Your task to perform on an android device: Go to Yahoo.com Image 0: 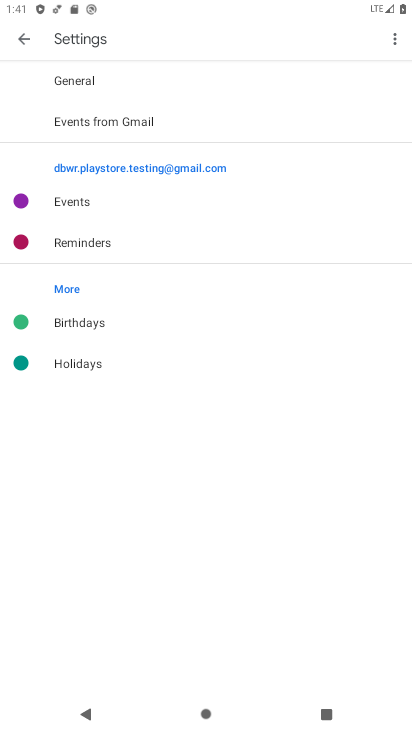
Step 0: press back button
Your task to perform on an android device: Go to Yahoo.com Image 1: 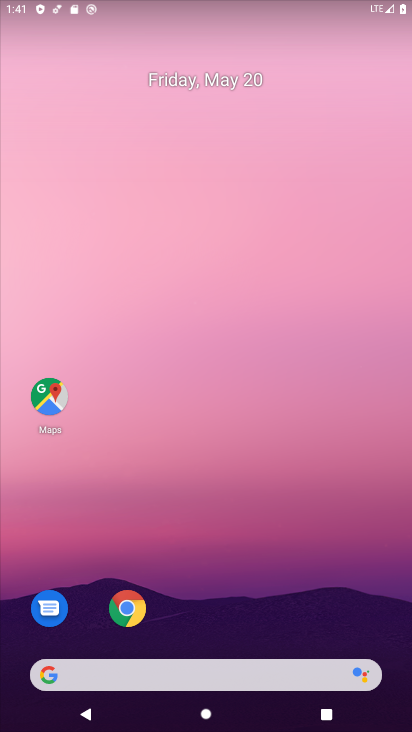
Step 1: click (129, 608)
Your task to perform on an android device: Go to Yahoo.com Image 2: 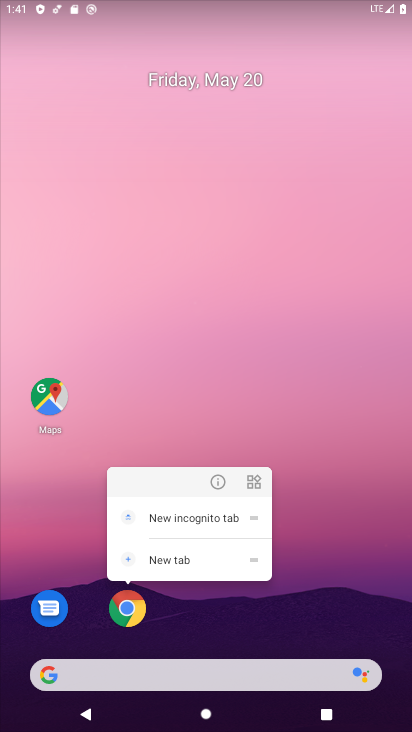
Step 2: click (129, 608)
Your task to perform on an android device: Go to Yahoo.com Image 3: 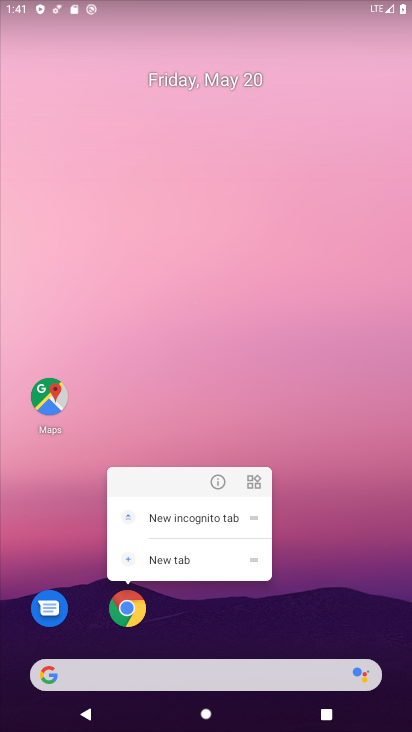
Step 3: click (122, 611)
Your task to perform on an android device: Go to Yahoo.com Image 4: 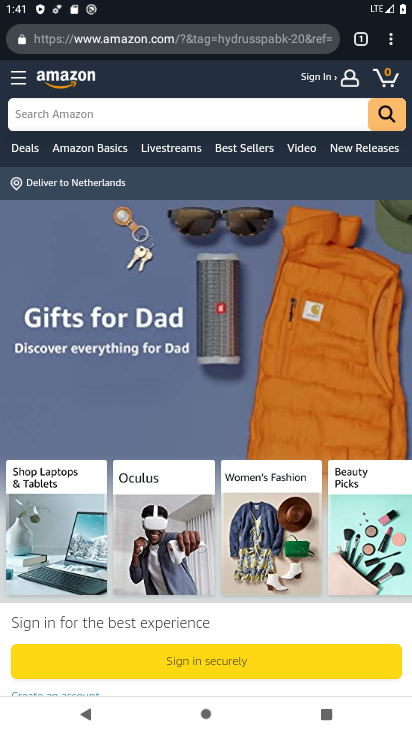
Step 4: click (175, 38)
Your task to perform on an android device: Go to Yahoo.com Image 5: 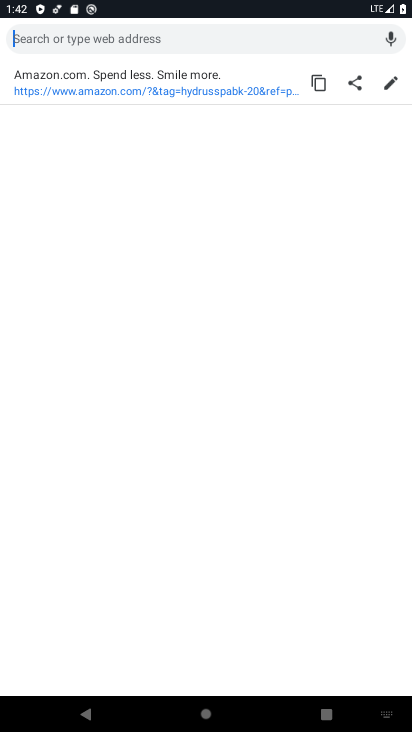
Step 5: type "Yahoo.com"
Your task to perform on an android device: Go to Yahoo.com Image 6: 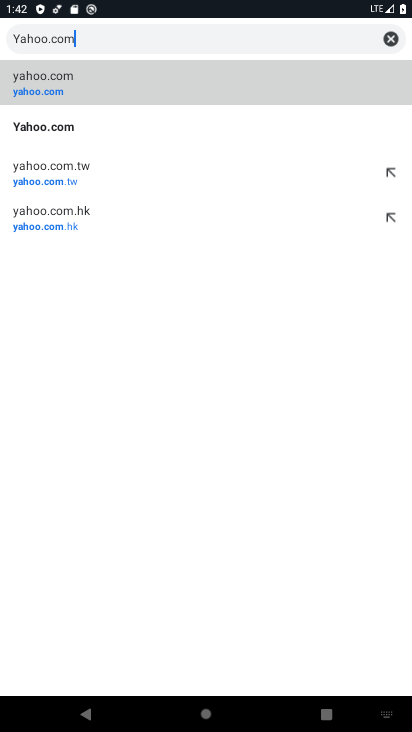
Step 6: click (44, 133)
Your task to perform on an android device: Go to Yahoo.com Image 7: 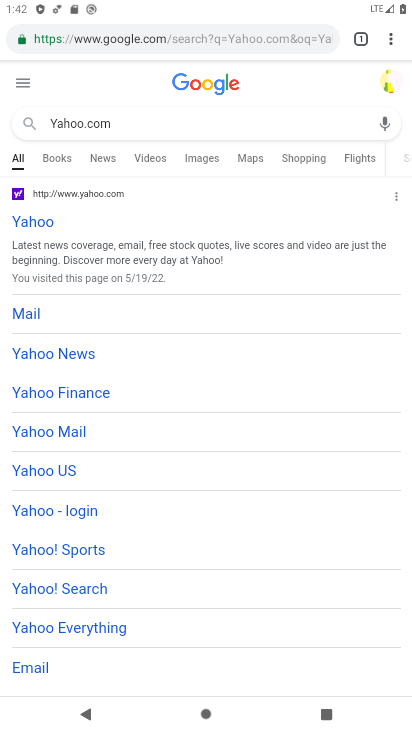
Step 7: click (34, 214)
Your task to perform on an android device: Go to Yahoo.com Image 8: 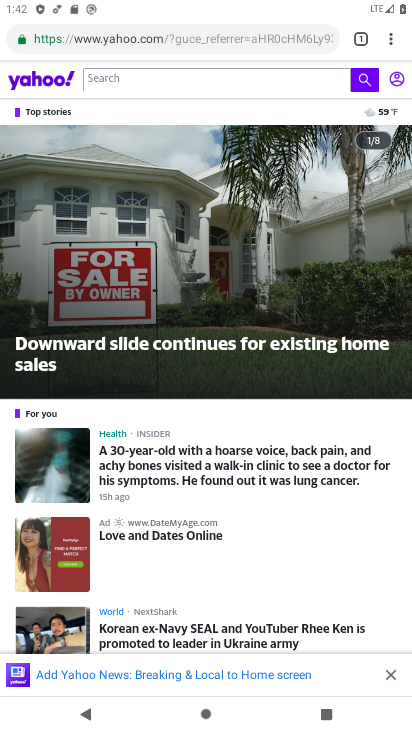
Step 8: task complete